Your task to perform on an android device: change the clock display to digital Image 0: 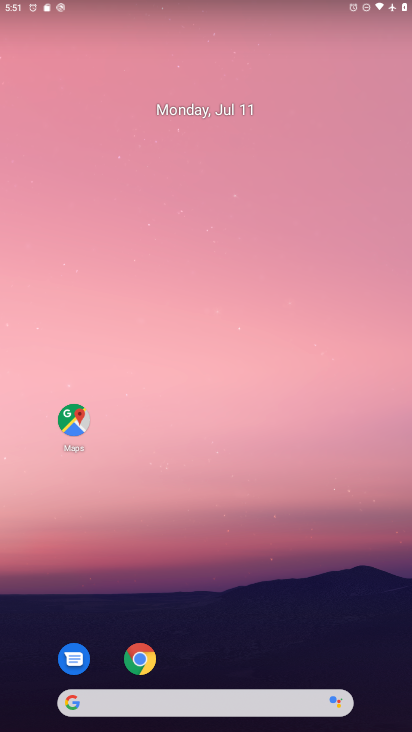
Step 0: drag from (362, 644) to (320, 73)
Your task to perform on an android device: change the clock display to digital Image 1: 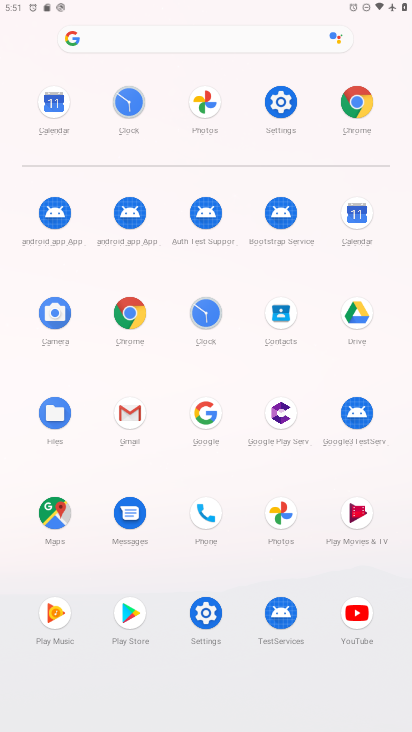
Step 1: click (206, 311)
Your task to perform on an android device: change the clock display to digital Image 2: 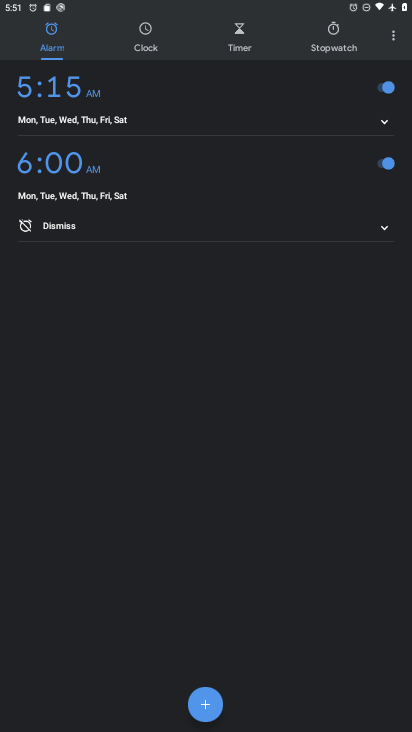
Step 2: click (395, 44)
Your task to perform on an android device: change the clock display to digital Image 3: 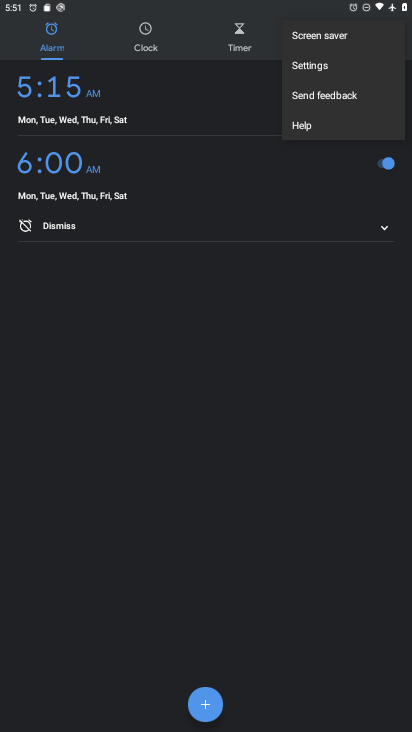
Step 3: click (309, 68)
Your task to perform on an android device: change the clock display to digital Image 4: 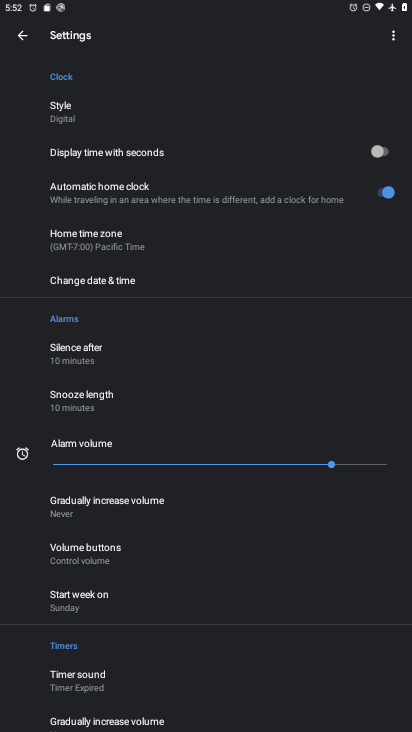
Step 4: task complete